Your task to perform on an android device: turn vacation reply on in the gmail app Image 0: 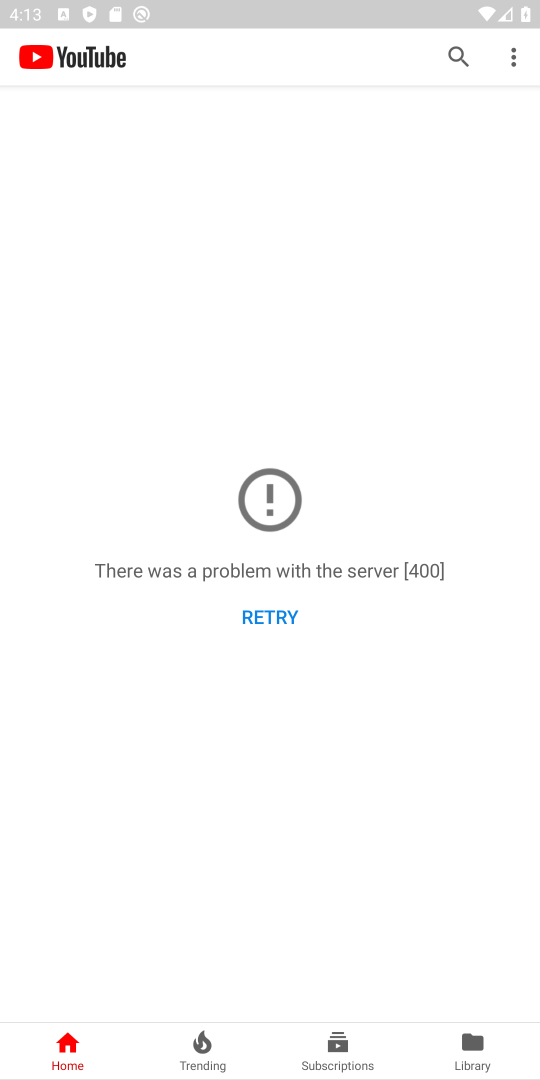
Step 0: press home button
Your task to perform on an android device: turn vacation reply on in the gmail app Image 1: 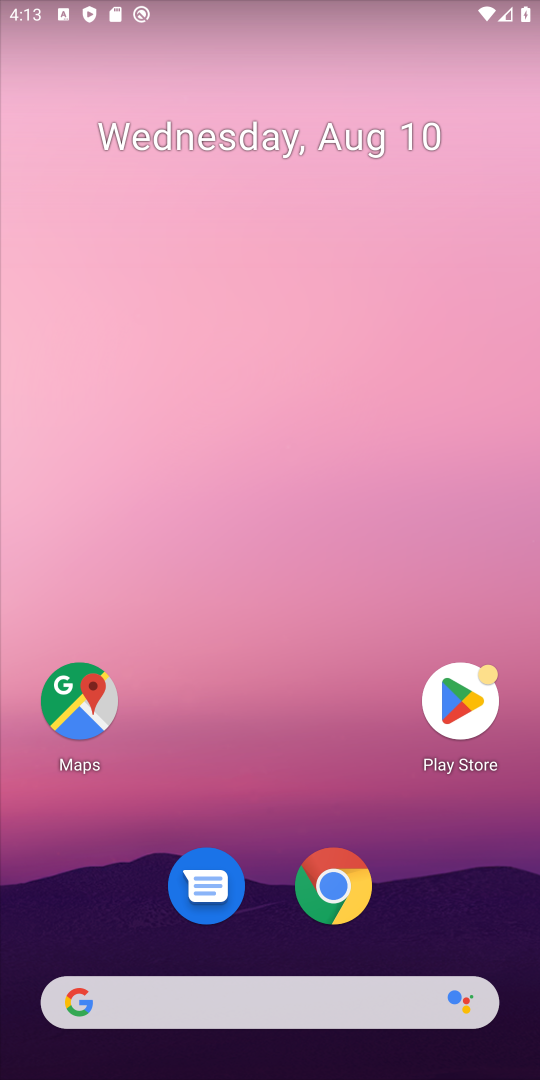
Step 1: drag from (215, 825) to (140, 74)
Your task to perform on an android device: turn vacation reply on in the gmail app Image 2: 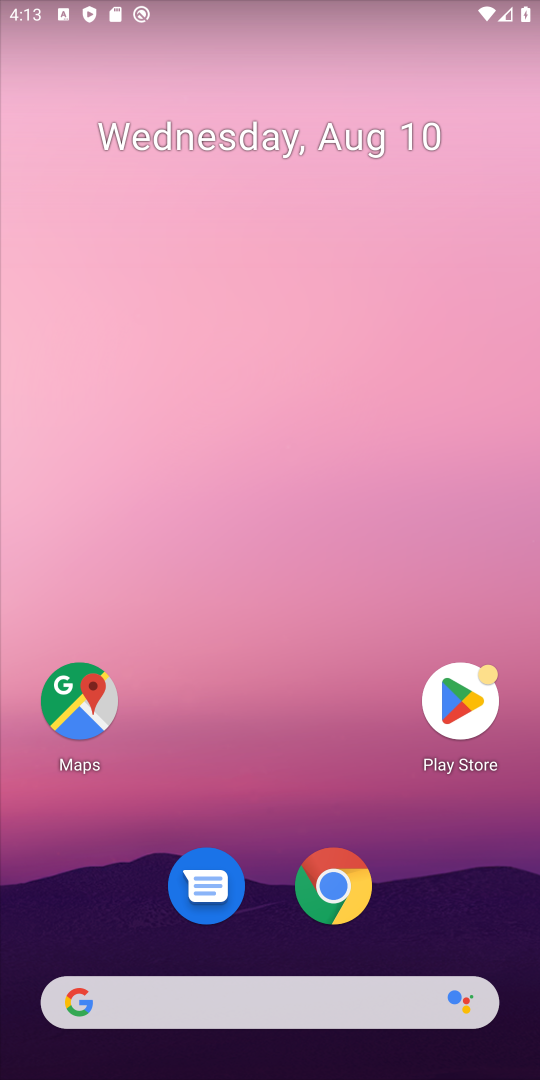
Step 2: drag from (108, 892) to (117, 68)
Your task to perform on an android device: turn vacation reply on in the gmail app Image 3: 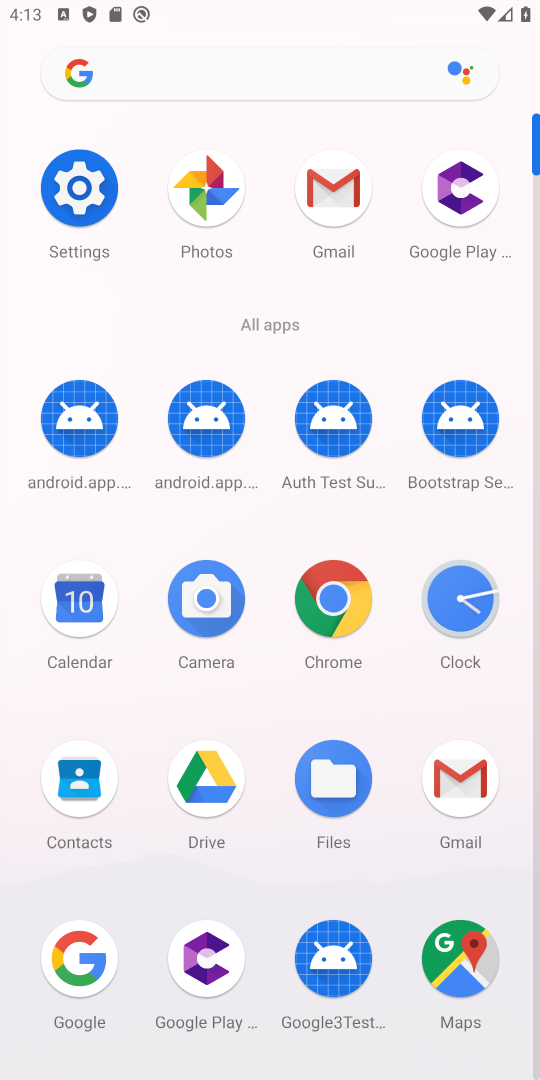
Step 3: click (434, 812)
Your task to perform on an android device: turn vacation reply on in the gmail app Image 4: 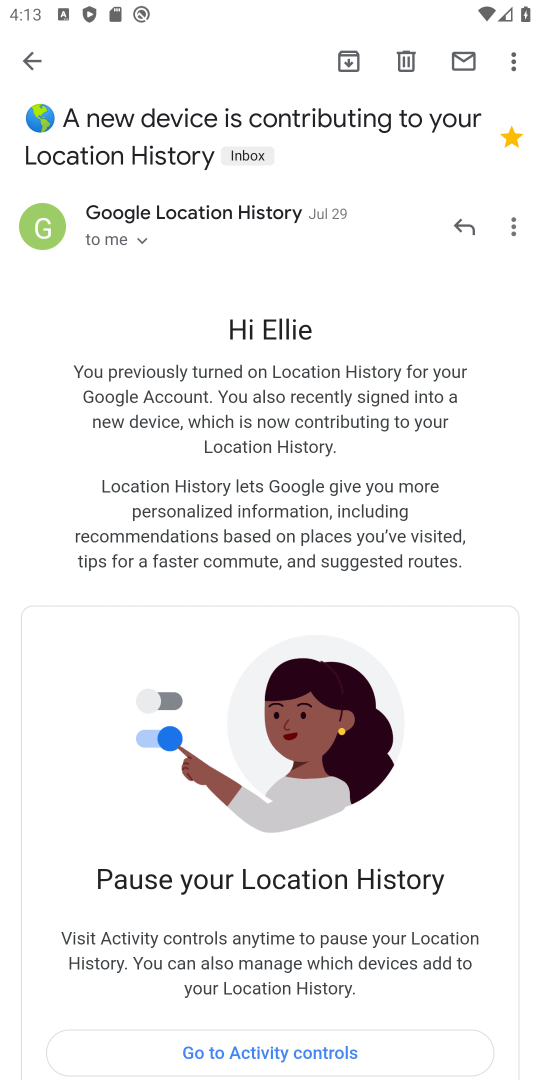
Step 4: click (39, 70)
Your task to perform on an android device: turn vacation reply on in the gmail app Image 5: 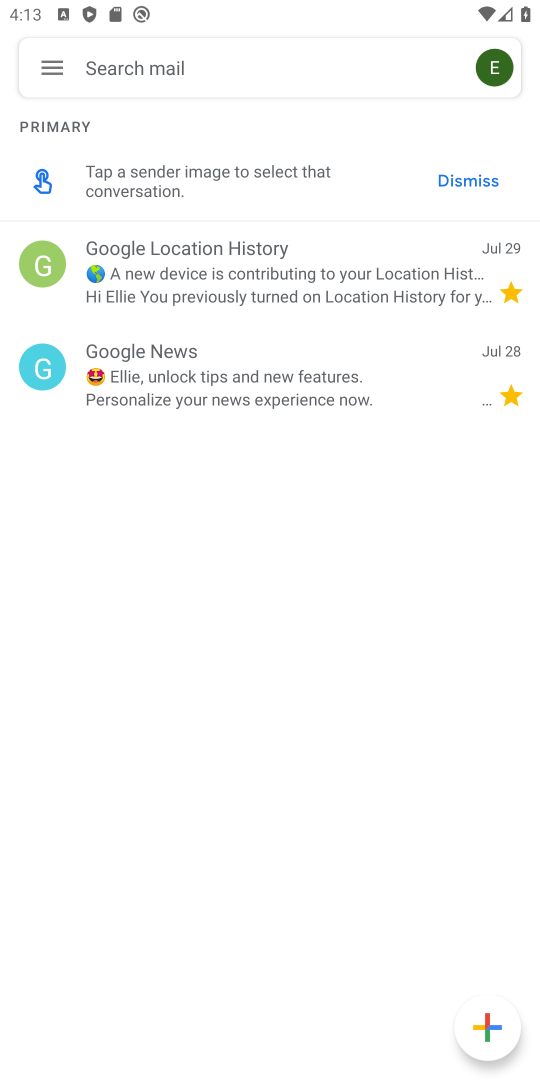
Step 5: click (39, 70)
Your task to perform on an android device: turn vacation reply on in the gmail app Image 6: 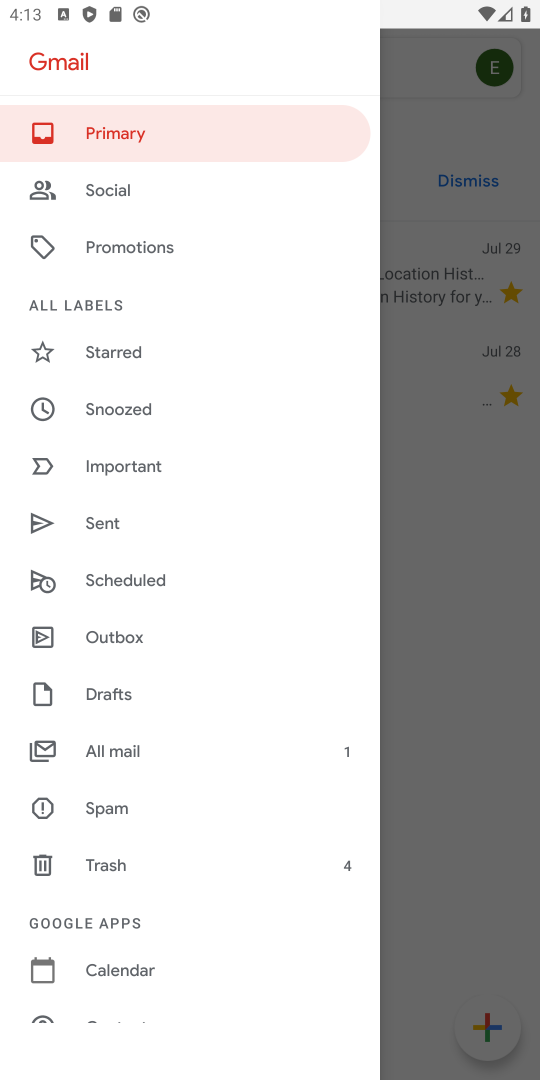
Step 6: drag from (204, 906) to (128, 317)
Your task to perform on an android device: turn vacation reply on in the gmail app Image 7: 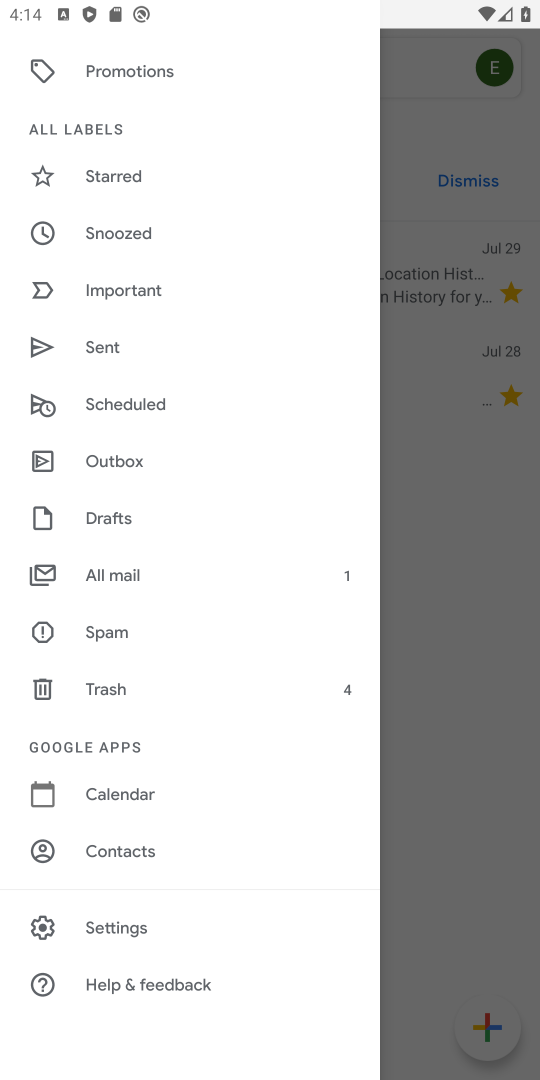
Step 7: click (131, 933)
Your task to perform on an android device: turn vacation reply on in the gmail app Image 8: 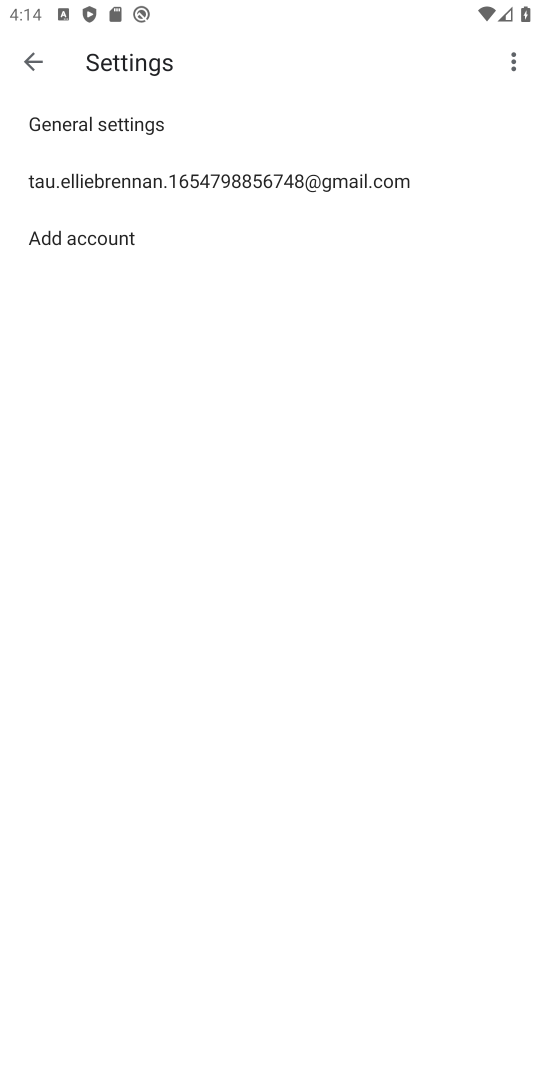
Step 8: click (73, 127)
Your task to perform on an android device: turn vacation reply on in the gmail app Image 9: 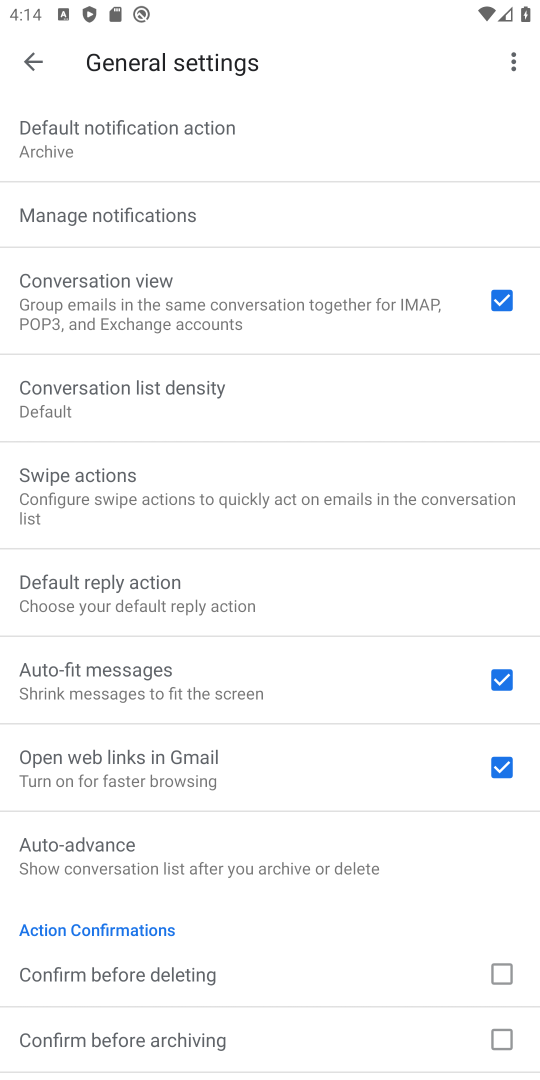
Step 9: click (193, 586)
Your task to perform on an android device: turn vacation reply on in the gmail app Image 10: 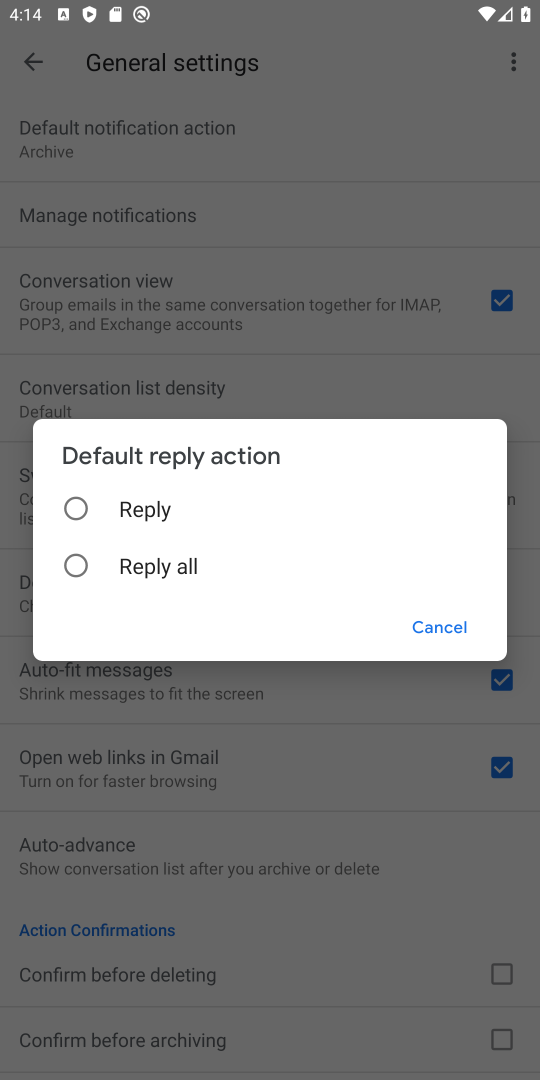
Step 10: click (132, 564)
Your task to perform on an android device: turn vacation reply on in the gmail app Image 11: 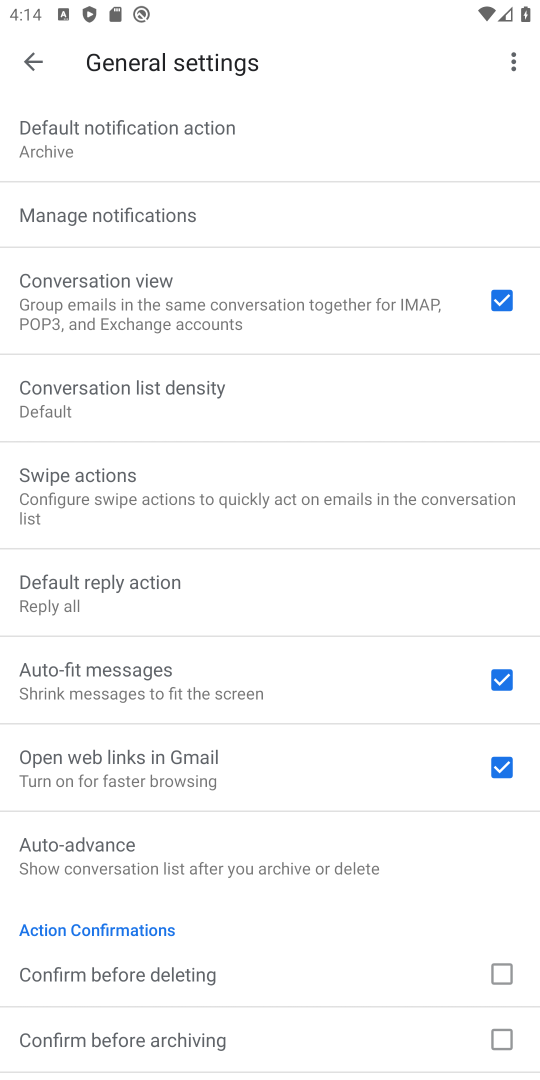
Step 11: task complete